Your task to perform on an android device: Search for hotels in Orlando Image 0: 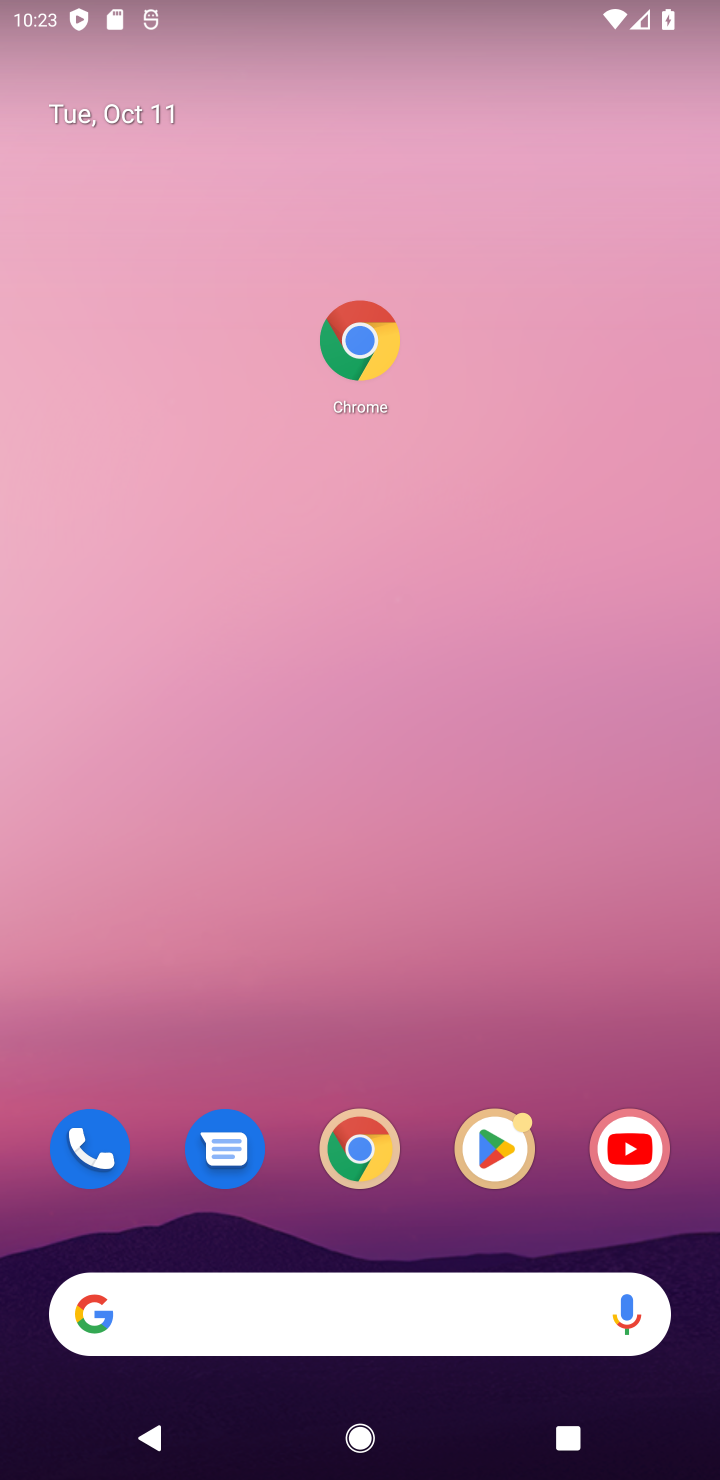
Step 0: drag from (423, 1054) to (472, 59)
Your task to perform on an android device: Search for hotels in Orlando Image 1: 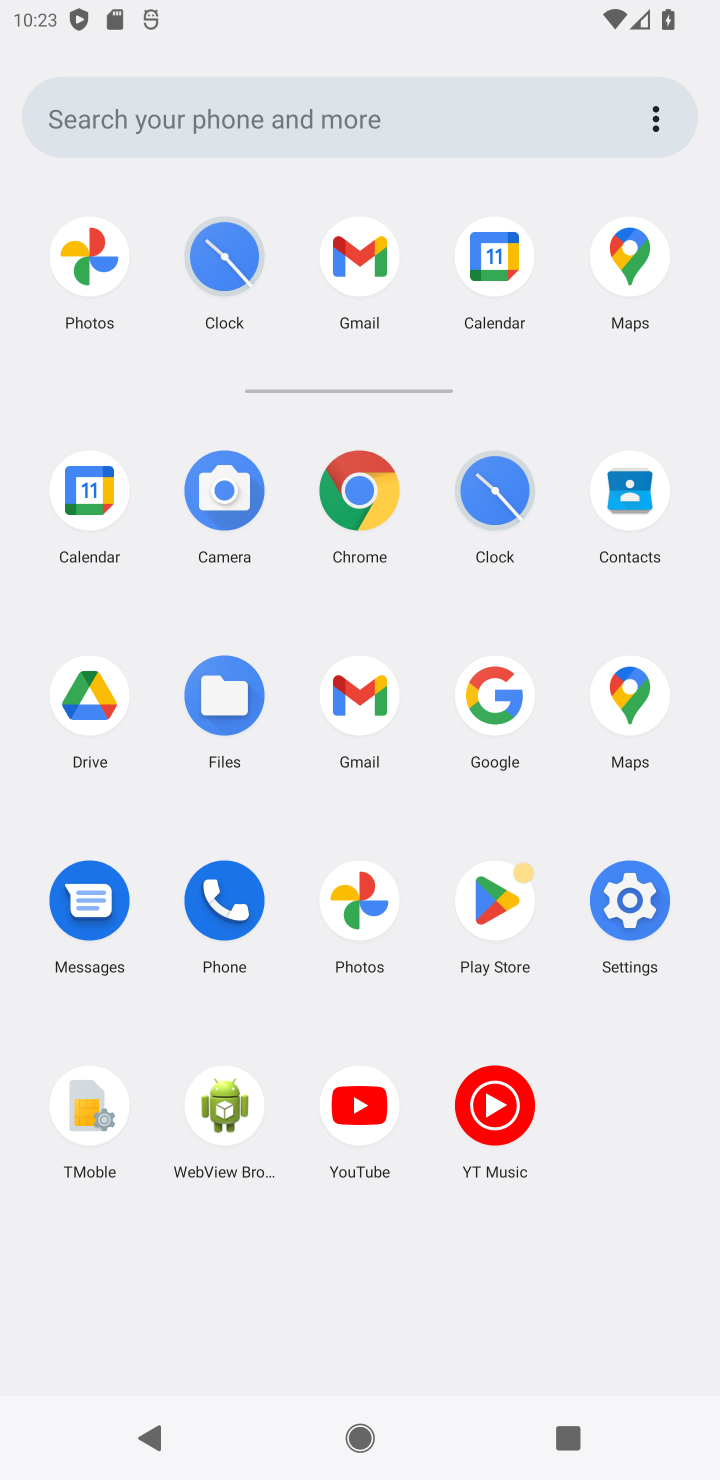
Step 1: click (346, 481)
Your task to perform on an android device: Search for hotels in Orlando Image 2: 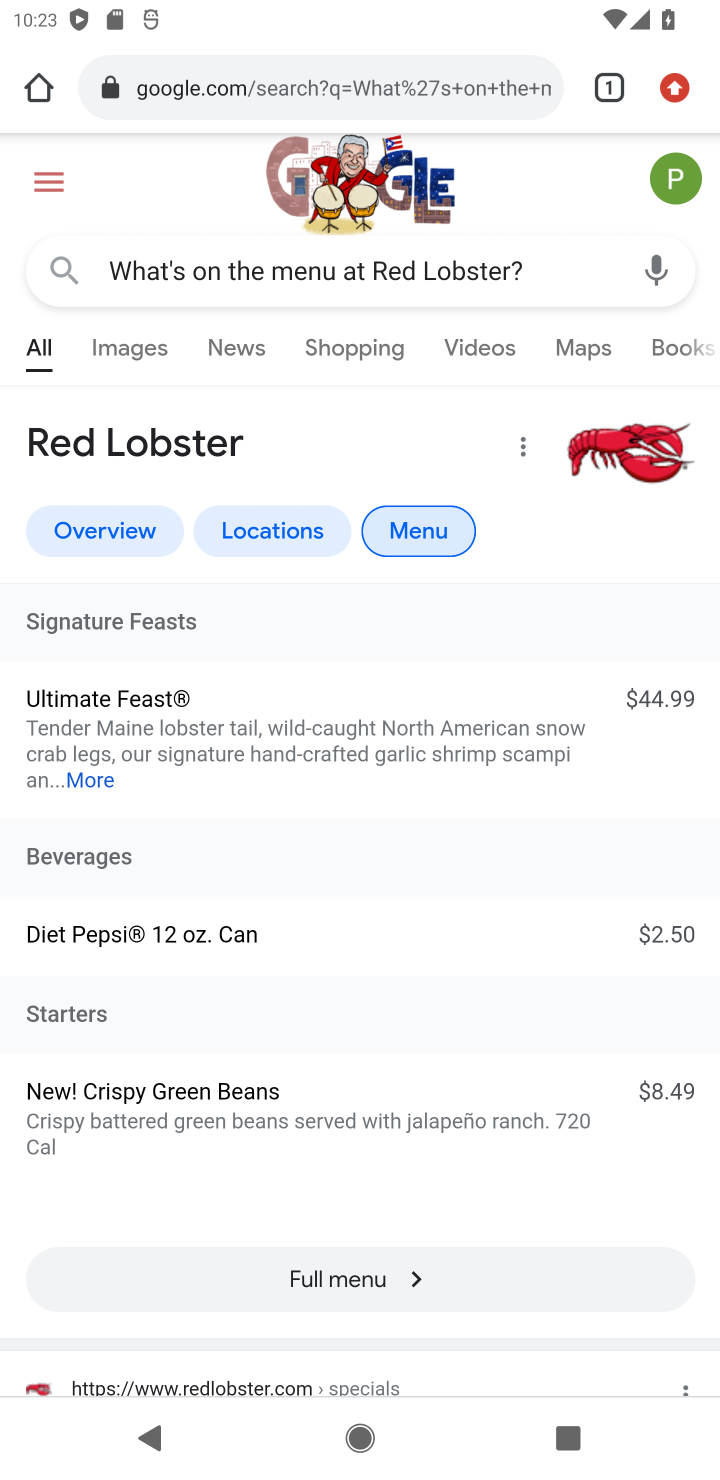
Step 2: click (378, 78)
Your task to perform on an android device: Search for hotels in Orlando Image 3: 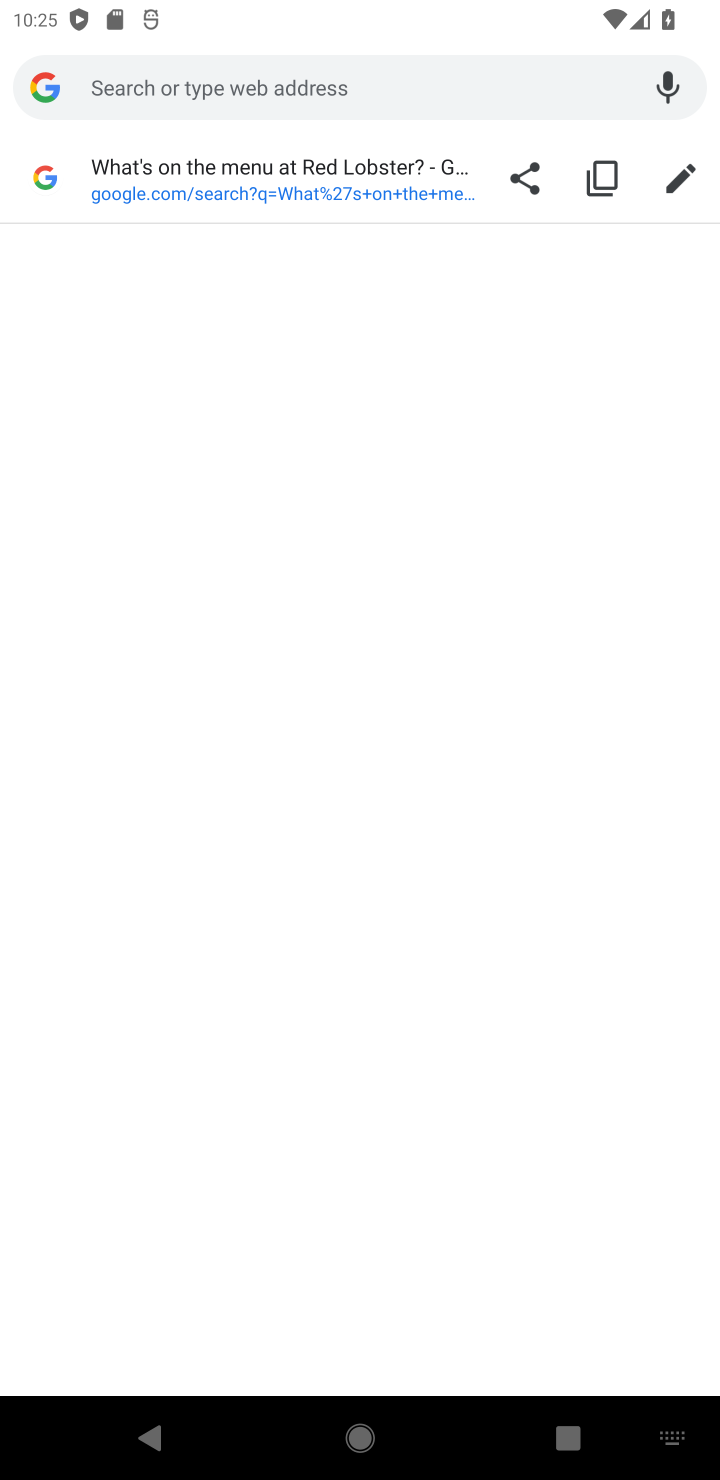
Step 3: type "hotels in Orlando"
Your task to perform on an android device: Search for hotels in Orlando Image 4: 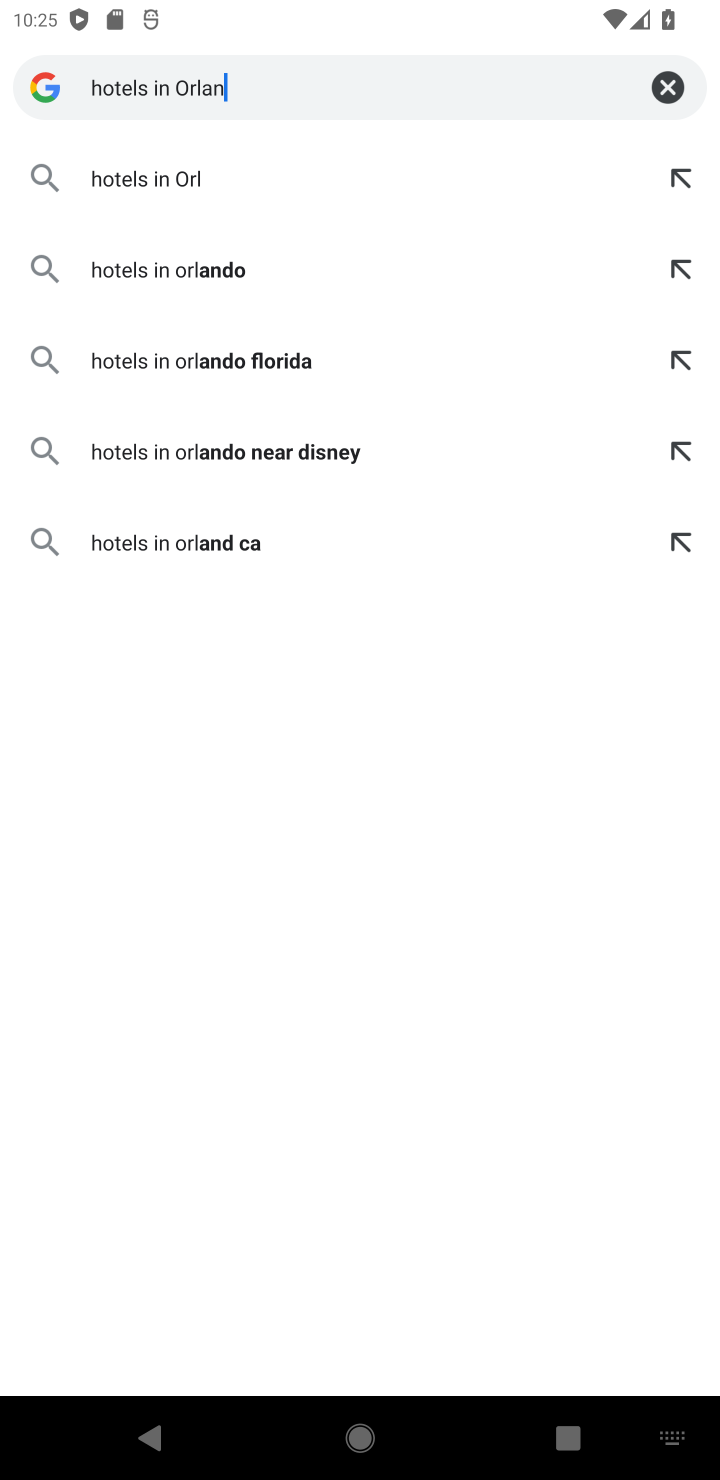
Step 4: press enter
Your task to perform on an android device: Search for hotels in Orlando Image 5: 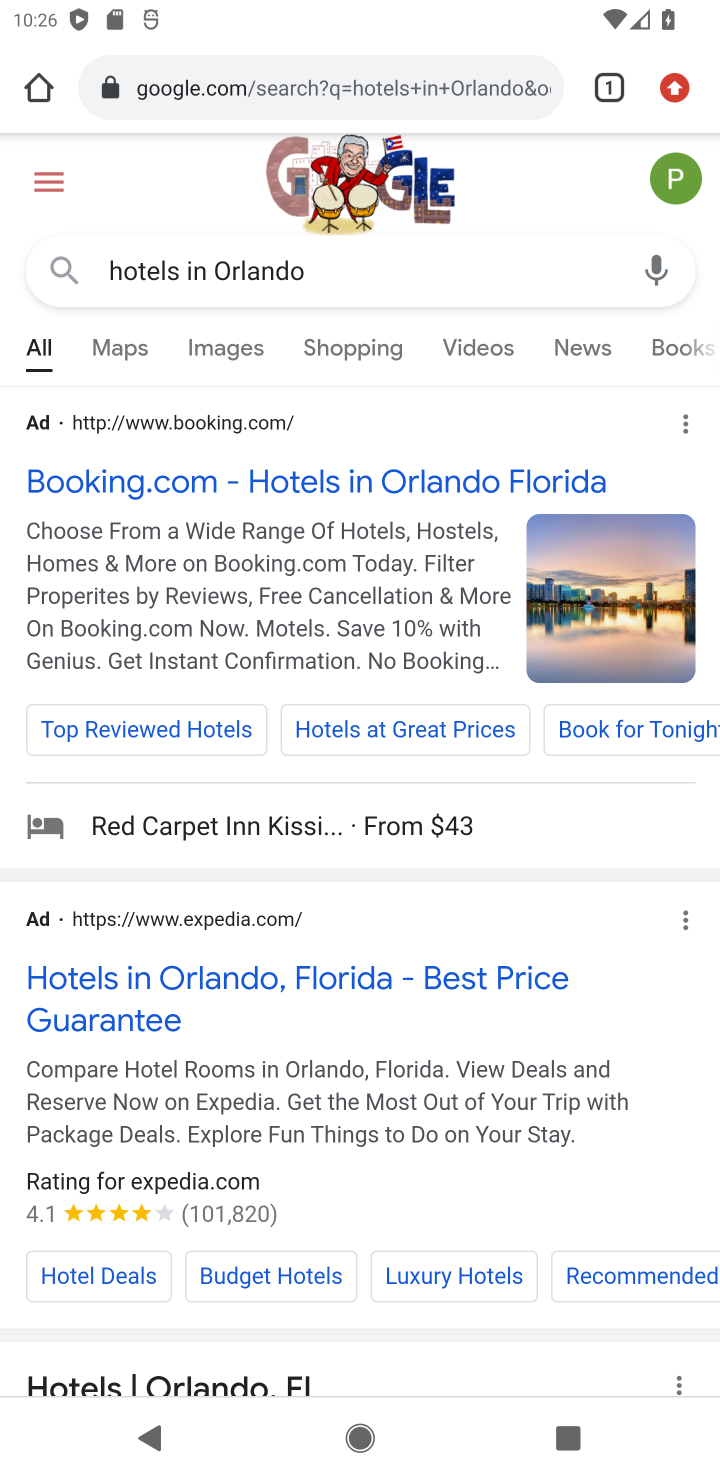
Step 5: click (296, 481)
Your task to perform on an android device: Search for hotels in Orlando Image 6: 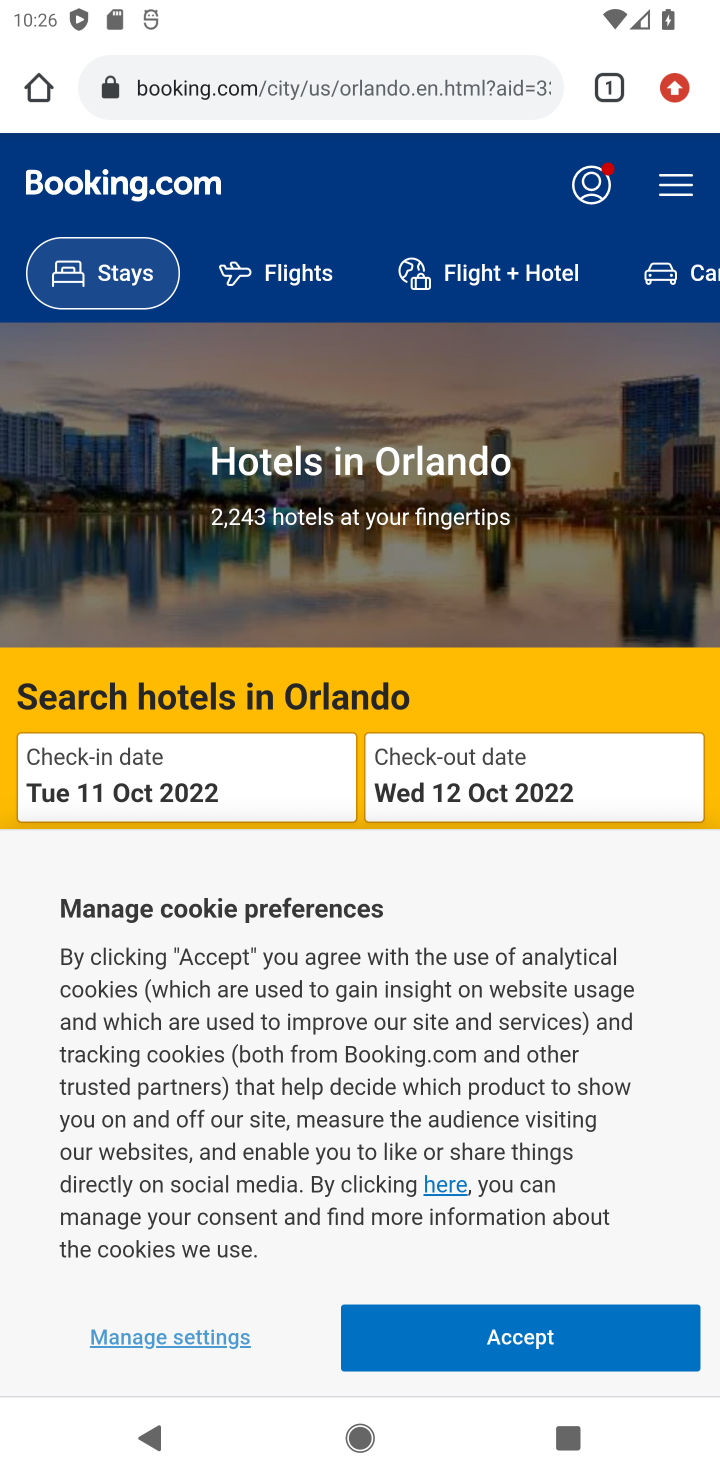
Step 6: task complete